Your task to perform on an android device: Play the new Maroon 5 video on YouTube Image 0: 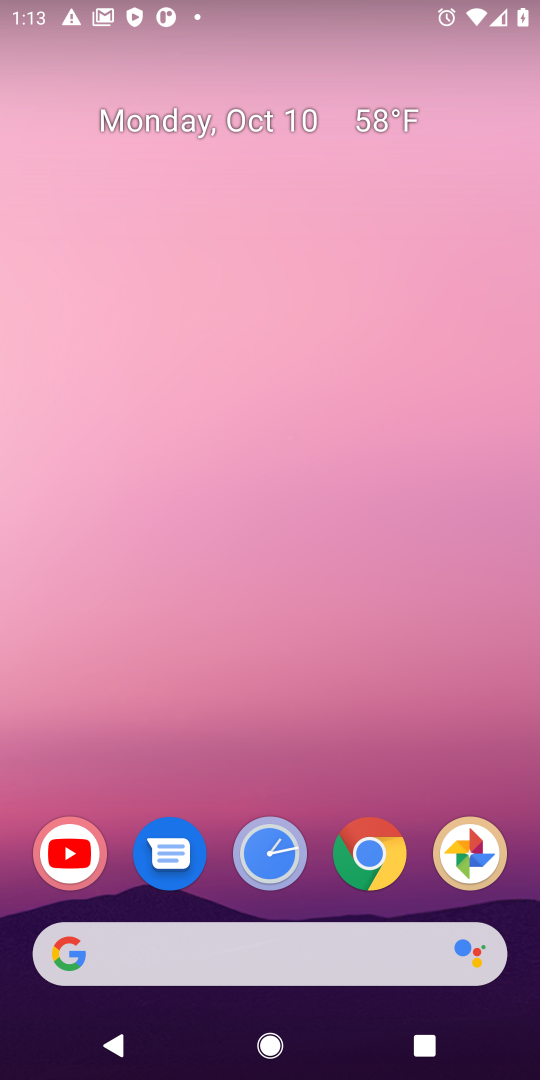
Step 0: drag from (299, 944) to (316, 349)
Your task to perform on an android device: Play the new Maroon 5 video on YouTube Image 1: 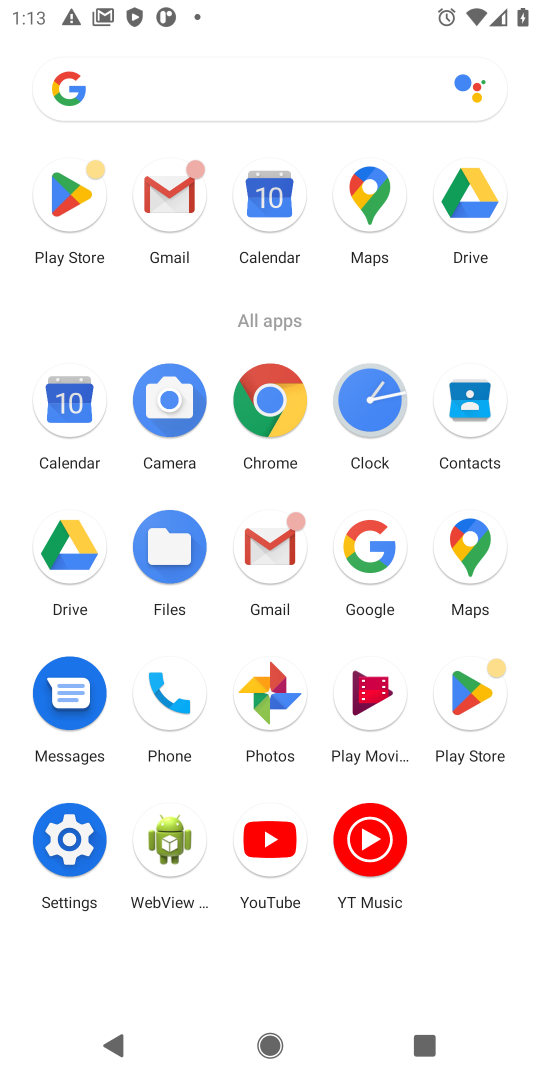
Step 1: click (266, 849)
Your task to perform on an android device: Play the new Maroon 5 video on YouTube Image 2: 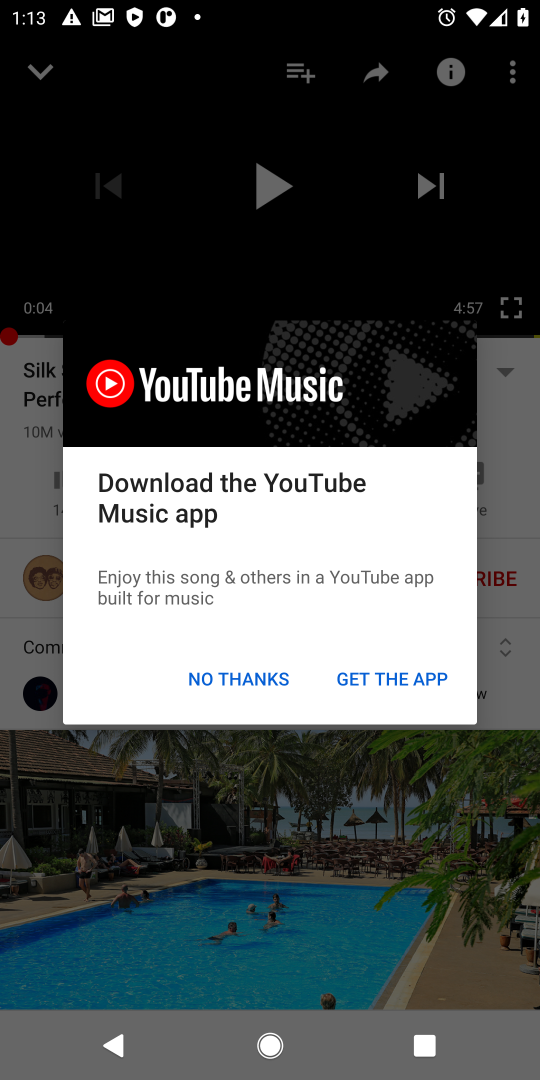
Step 2: click (219, 679)
Your task to perform on an android device: Play the new Maroon 5 video on YouTube Image 3: 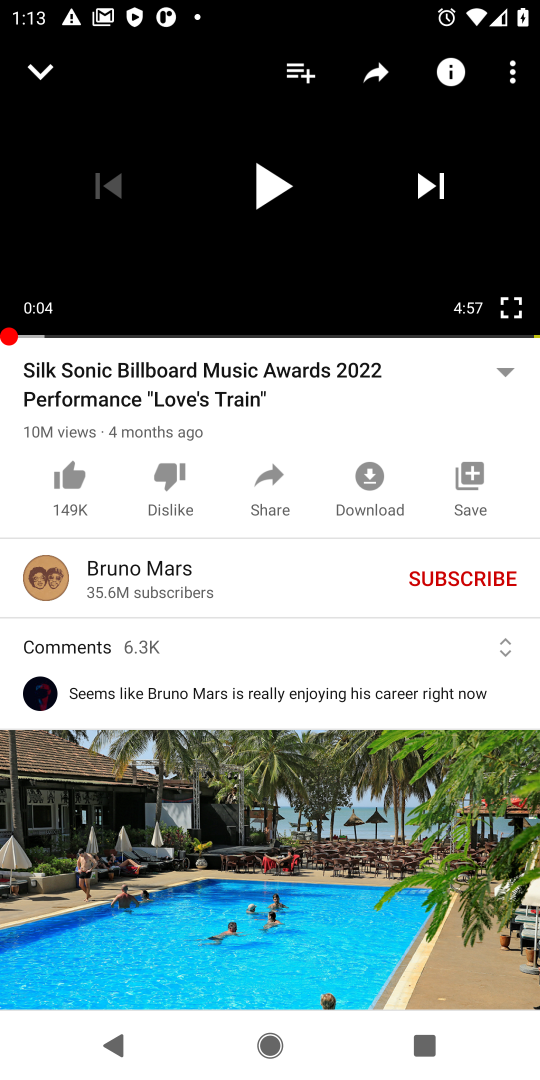
Step 3: click (36, 71)
Your task to perform on an android device: Play the new Maroon 5 video on YouTube Image 4: 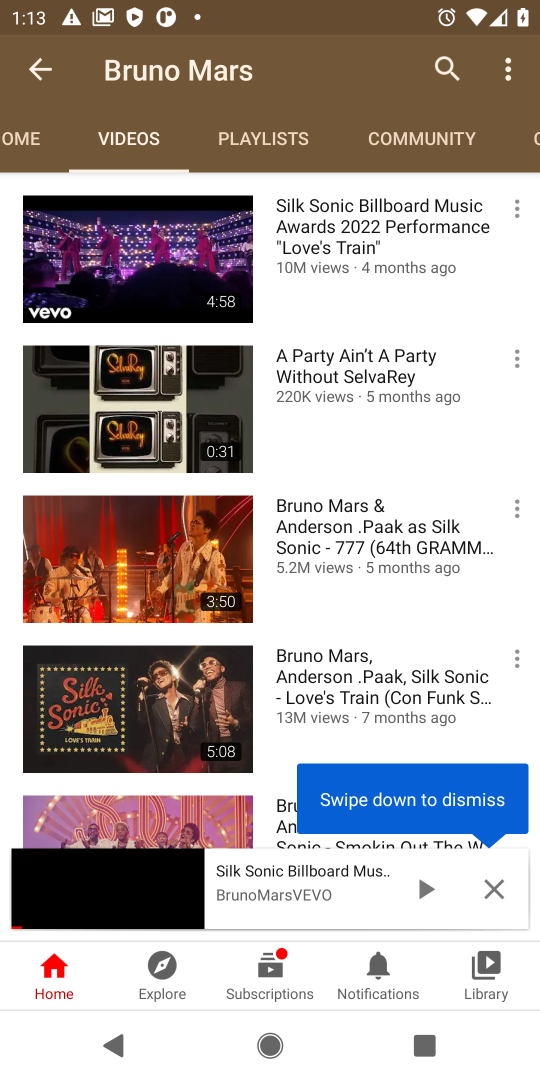
Step 4: click (442, 64)
Your task to perform on an android device: Play the new Maroon 5 video on YouTube Image 5: 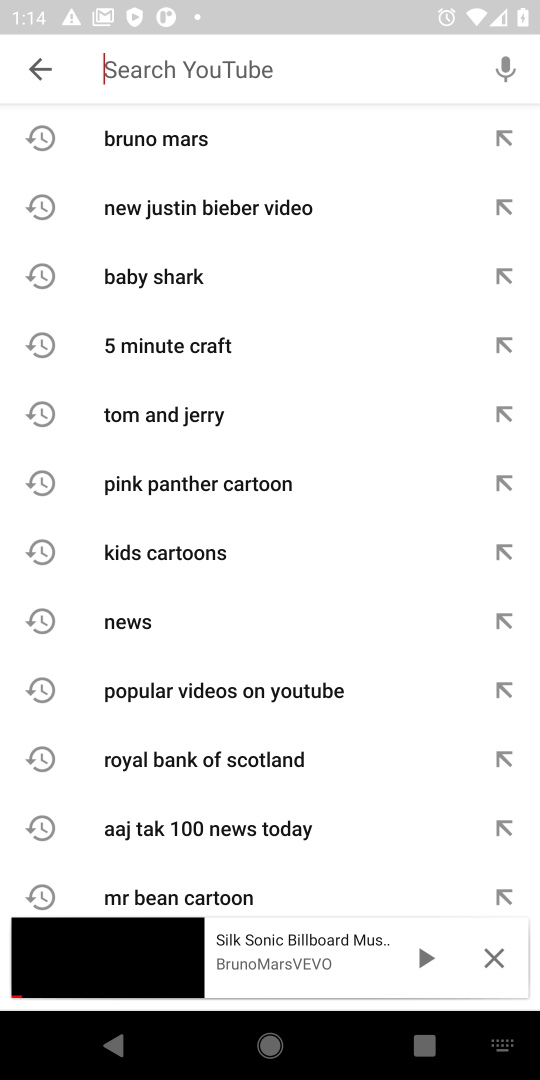
Step 5: type "maroon 5"
Your task to perform on an android device: Play the new Maroon 5 video on YouTube Image 6: 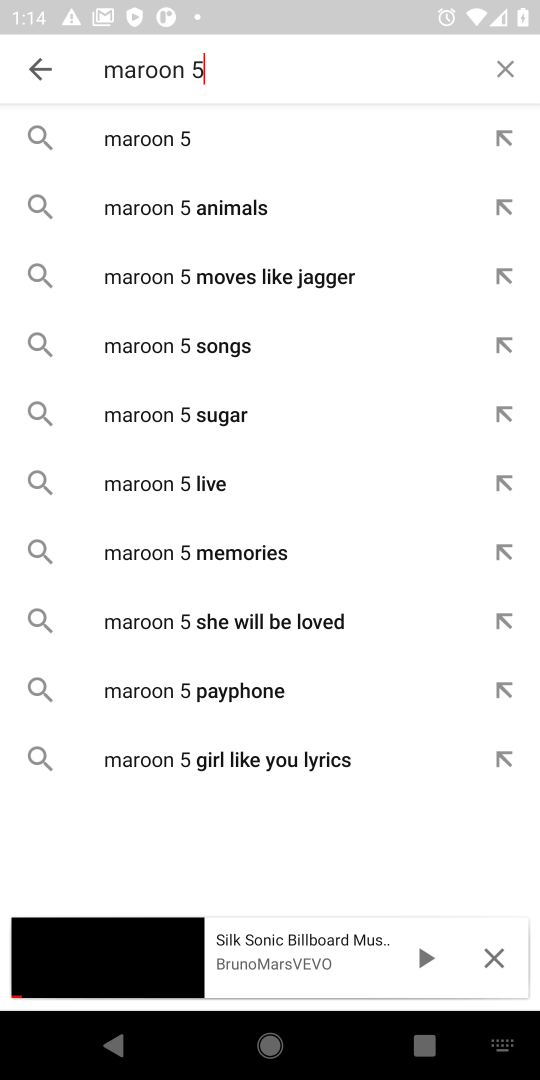
Step 6: click (232, 153)
Your task to perform on an android device: Play the new Maroon 5 video on YouTube Image 7: 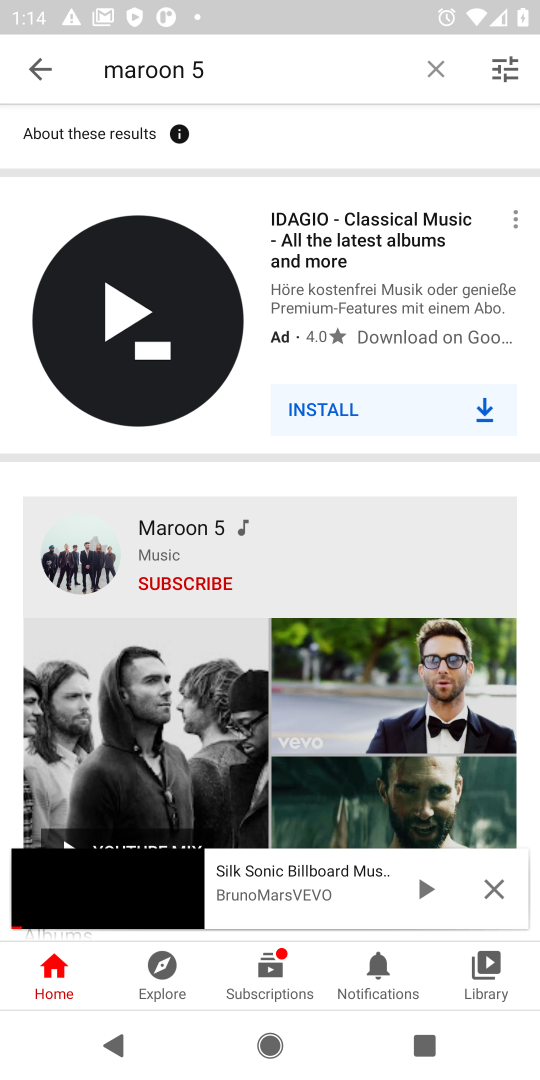
Step 7: click (107, 563)
Your task to perform on an android device: Play the new Maroon 5 video on YouTube Image 8: 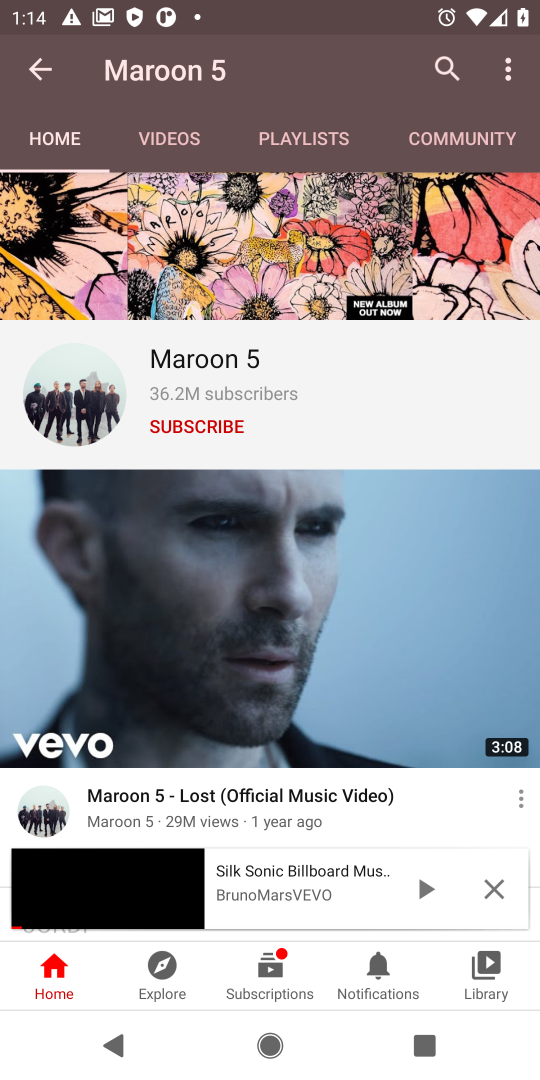
Step 8: click (169, 139)
Your task to perform on an android device: Play the new Maroon 5 video on YouTube Image 9: 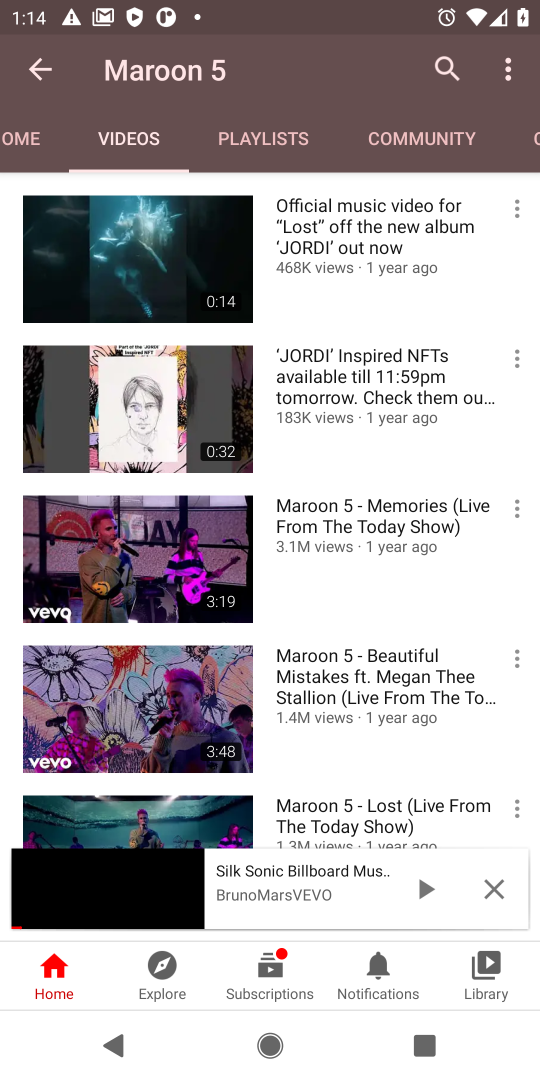
Step 9: click (168, 272)
Your task to perform on an android device: Play the new Maroon 5 video on YouTube Image 10: 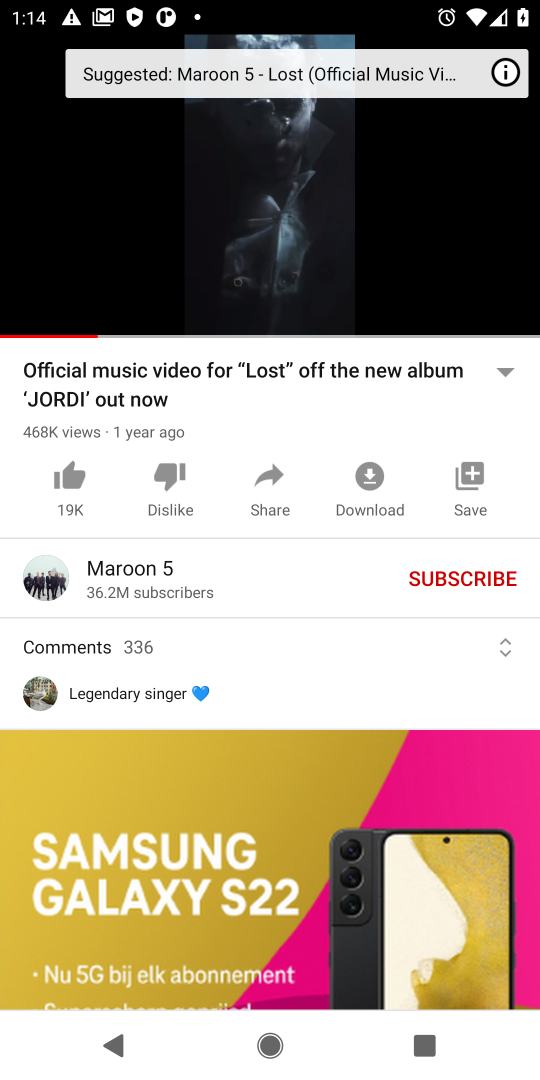
Step 10: task complete